Your task to perform on an android device: turn notification dots off Image 0: 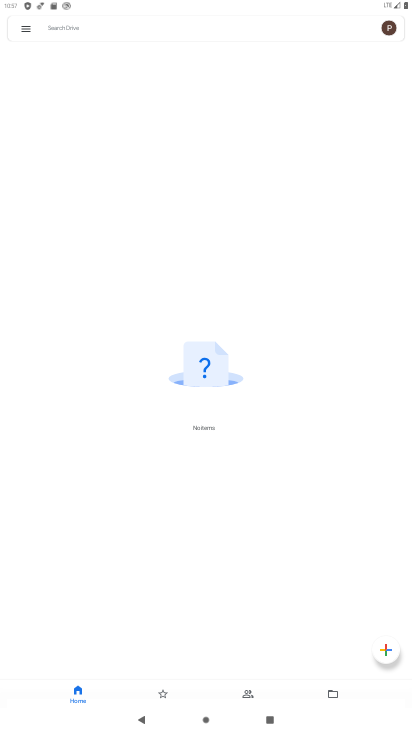
Step 0: press home button
Your task to perform on an android device: turn notification dots off Image 1: 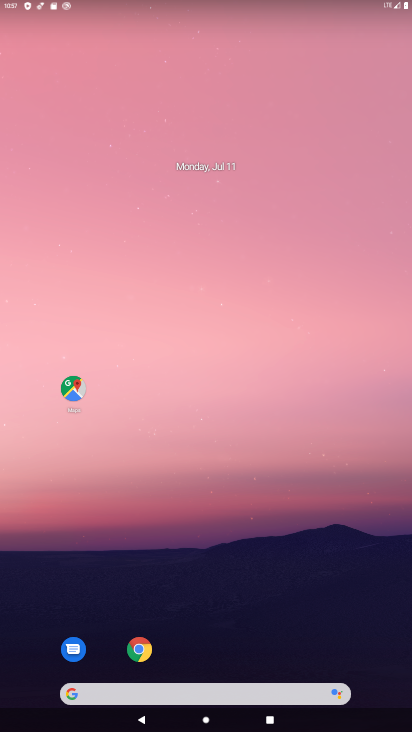
Step 1: drag from (223, 461) to (178, 26)
Your task to perform on an android device: turn notification dots off Image 2: 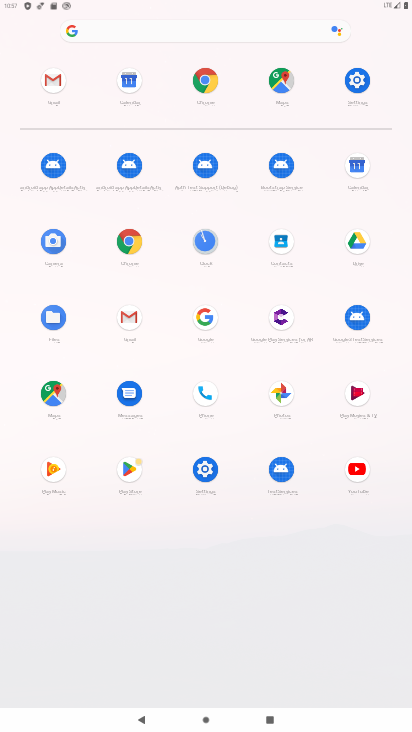
Step 2: click (363, 81)
Your task to perform on an android device: turn notification dots off Image 3: 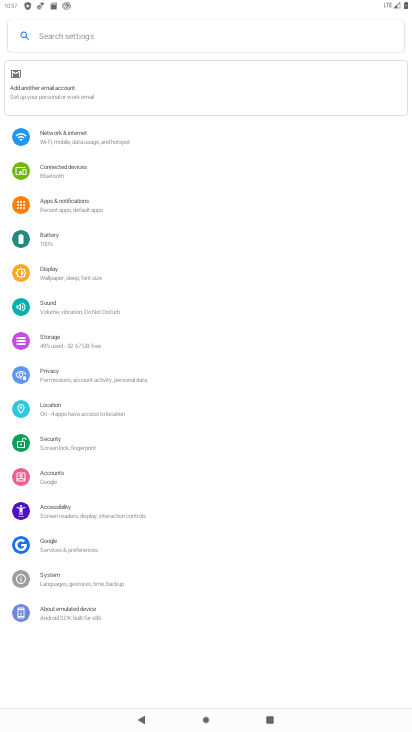
Step 3: click (81, 205)
Your task to perform on an android device: turn notification dots off Image 4: 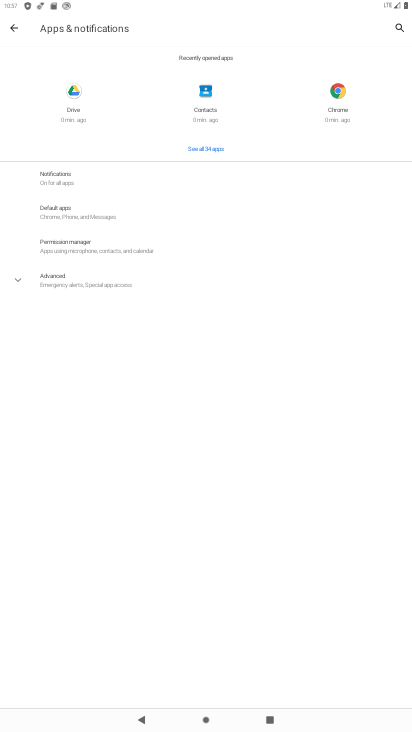
Step 4: click (81, 182)
Your task to perform on an android device: turn notification dots off Image 5: 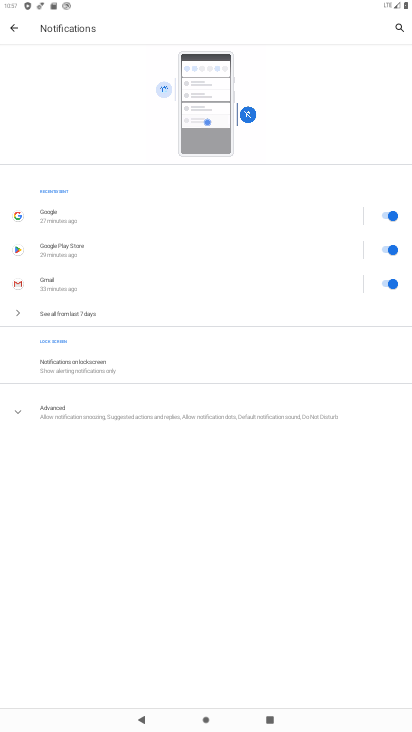
Step 5: click (127, 411)
Your task to perform on an android device: turn notification dots off Image 6: 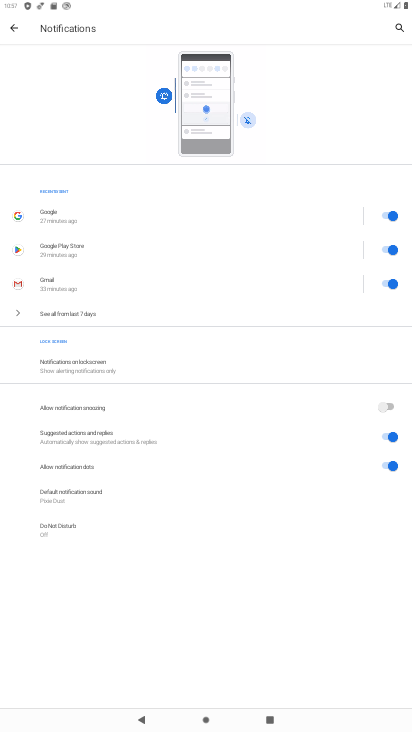
Step 6: click (395, 469)
Your task to perform on an android device: turn notification dots off Image 7: 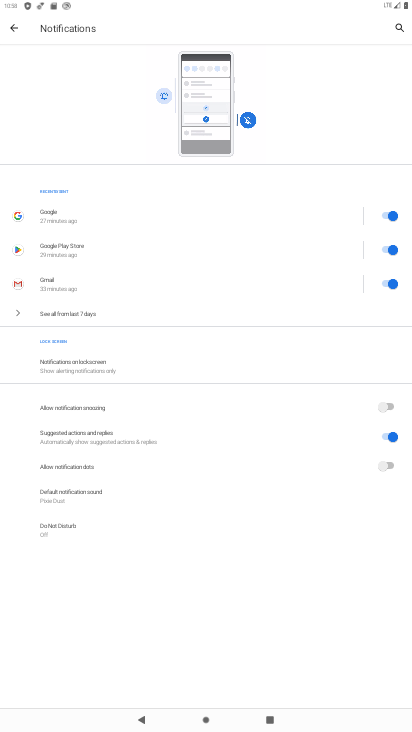
Step 7: task complete